Your task to perform on an android device: open a bookmark in the chrome app Image 0: 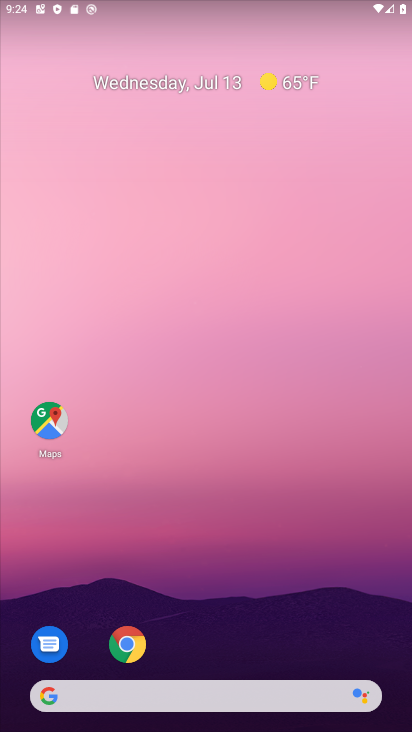
Step 0: drag from (219, 645) to (233, 37)
Your task to perform on an android device: open a bookmark in the chrome app Image 1: 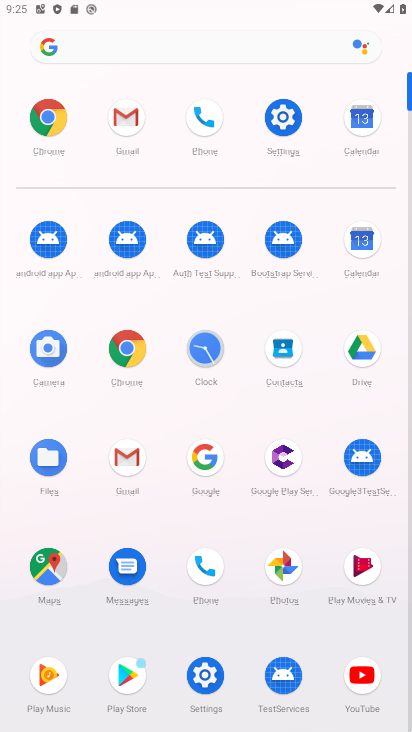
Step 1: click (31, 106)
Your task to perform on an android device: open a bookmark in the chrome app Image 2: 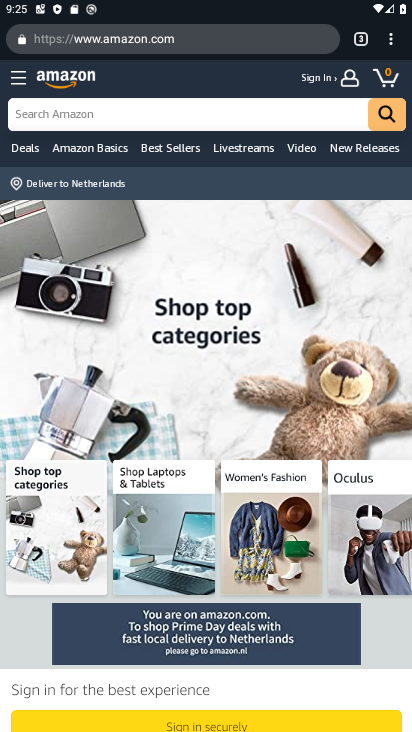
Step 2: drag from (394, 47) to (285, 154)
Your task to perform on an android device: open a bookmark in the chrome app Image 3: 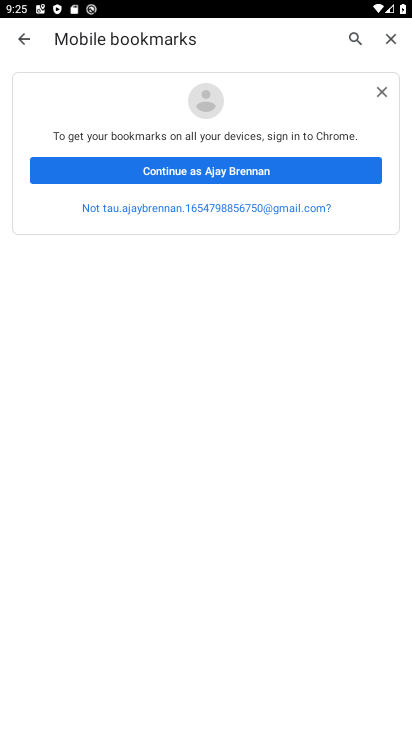
Step 3: click (148, 169)
Your task to perform on an android device: open a bookmark in the chrome app Image 4: 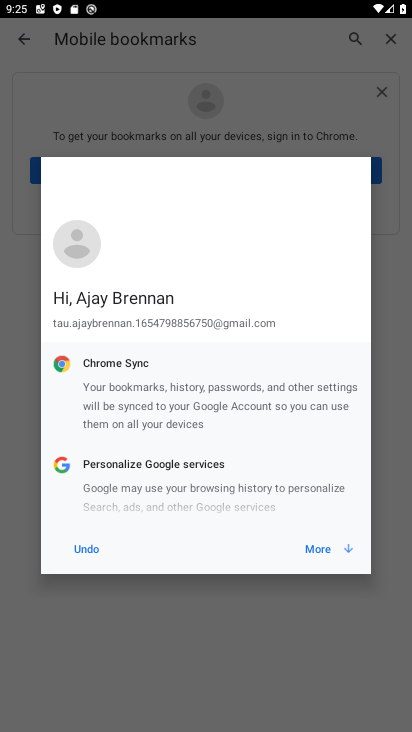
Step 4: click (324, 550)
Your task to perform on an android device: open a bookmark in the chrome app Image 5: 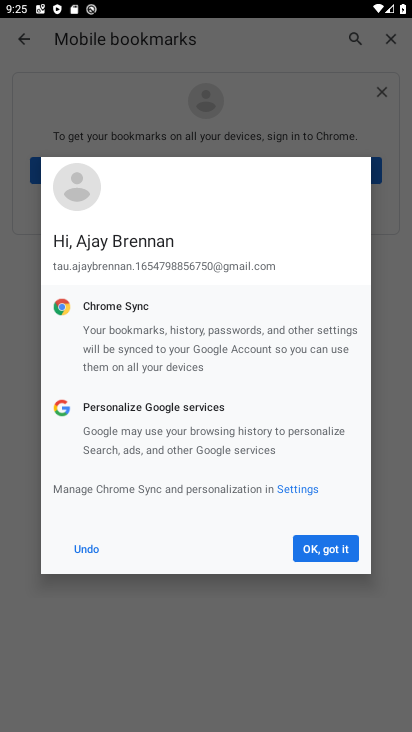
Step 5: click (322, 547)
Your task to perform on an android device: open a bookmark in the chrome app Image 6: 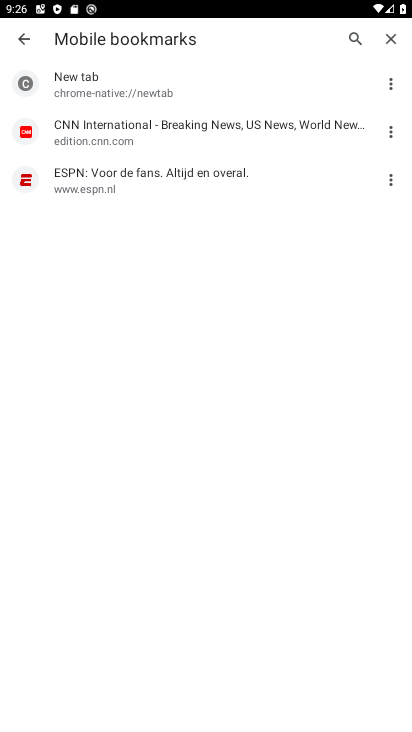
Step 6: task complete